Your task to perform on an android device: Open Reddit.com Image 0: 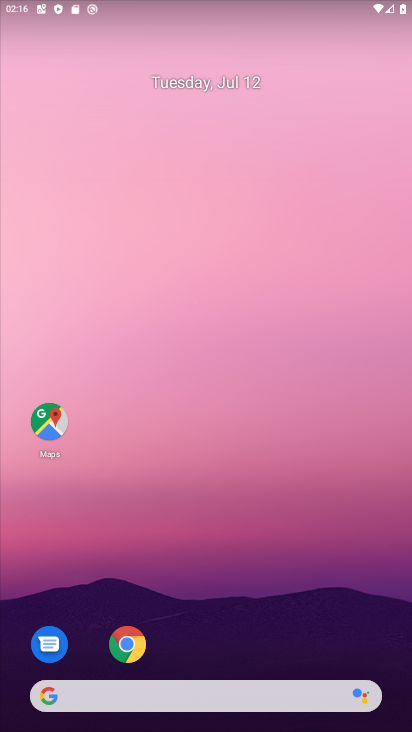
Step 0: click (121, 645)
Your task to perform on an android device: Open Reddit.com Image 1: 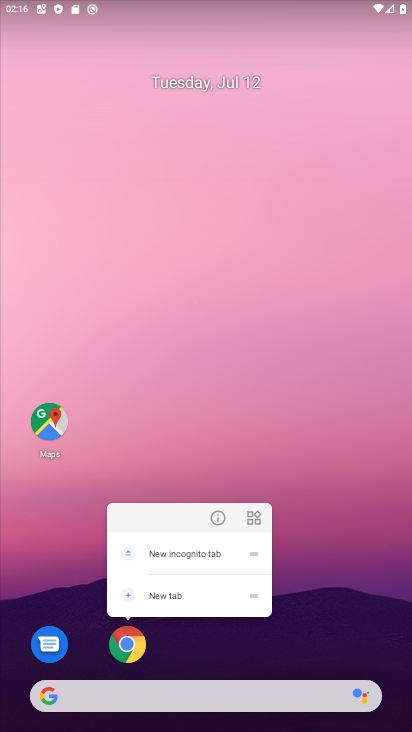
Step 1: click (125, 648)
Your task to perform on an android device: Open Reddit.com Image 2: 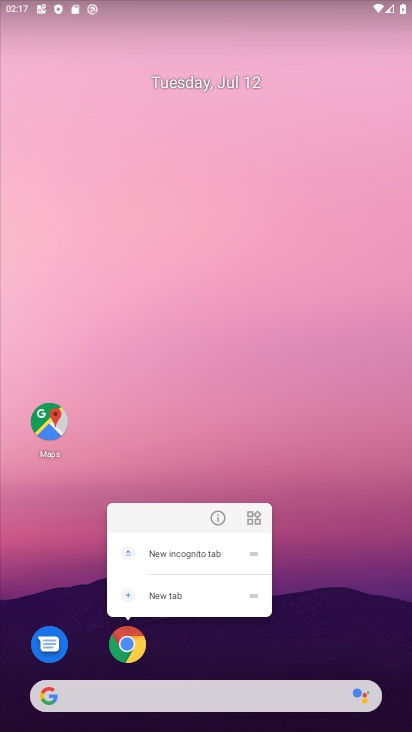
Step 2: click (137, 663)
Your task to perform on an android device: Open Reddit.com Image 3: 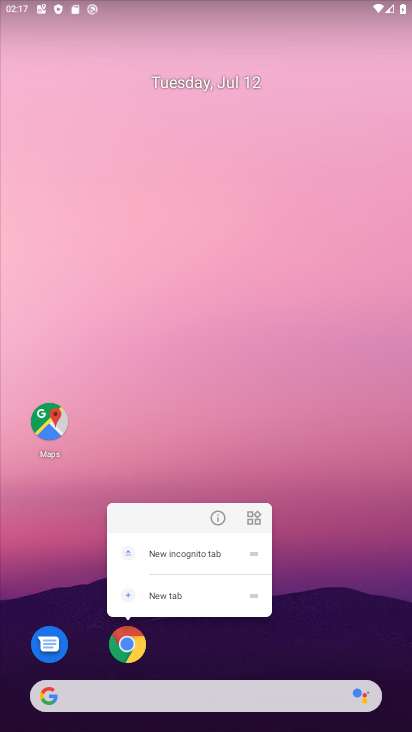
Step 3: click (135, 652)
Your task to perform on an android device: Open Reddit.com Image 4: 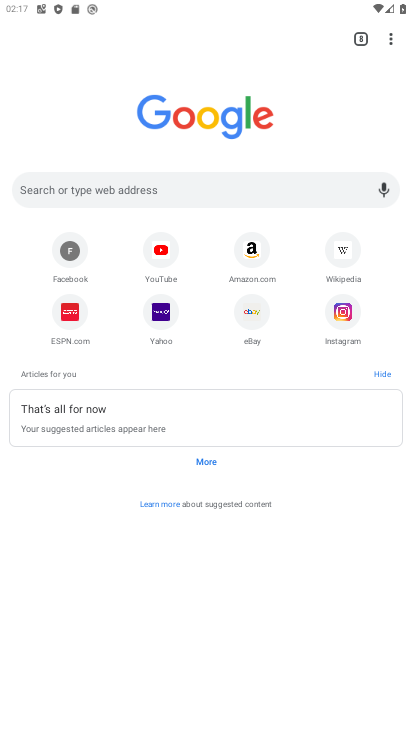
Step 4: click (235, 179)
Your task to perform on an android device: Open Reddit.com Image 5: 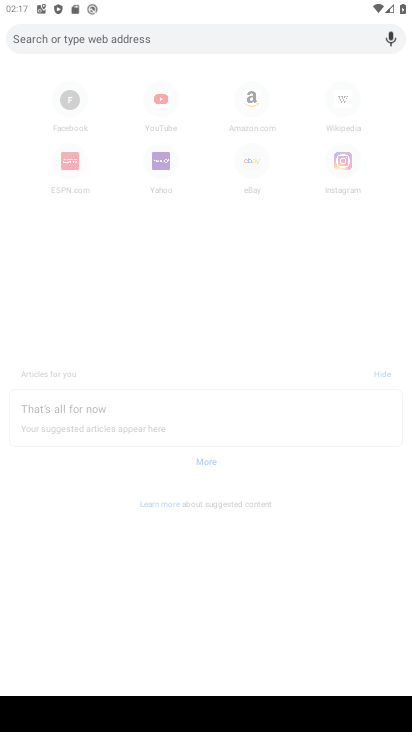
Step 5: type "Reddit.com"
Your task to perform on an android device: Open Reddit.com Image 6: 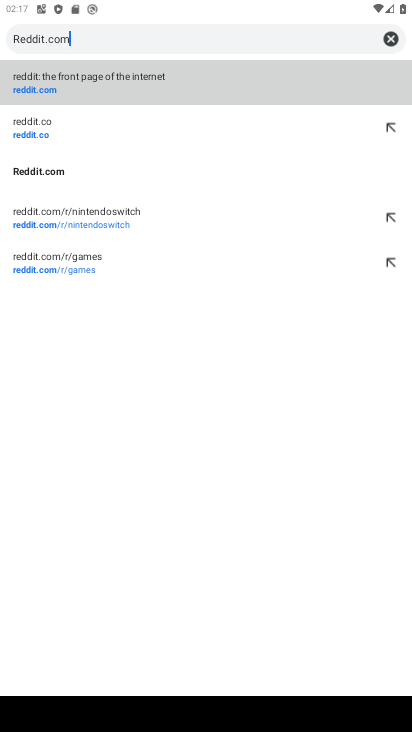
Step 6: type ""
Your task to perform on an android device: Open Reddit.com Image 7: 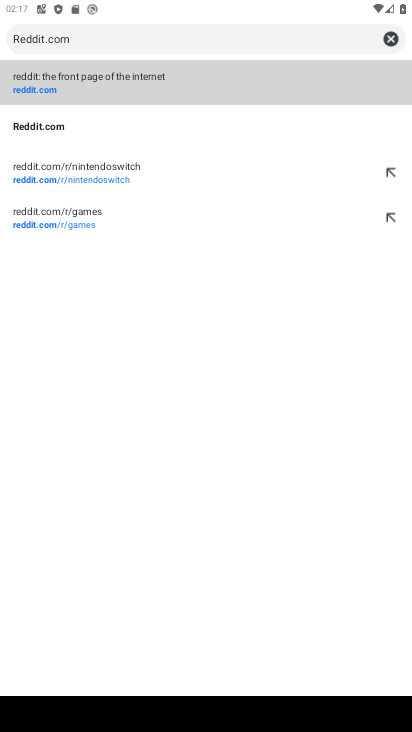
Step 7: click (22, 76)
Your task to perform on an android device: Open Reddit.com Image 8: 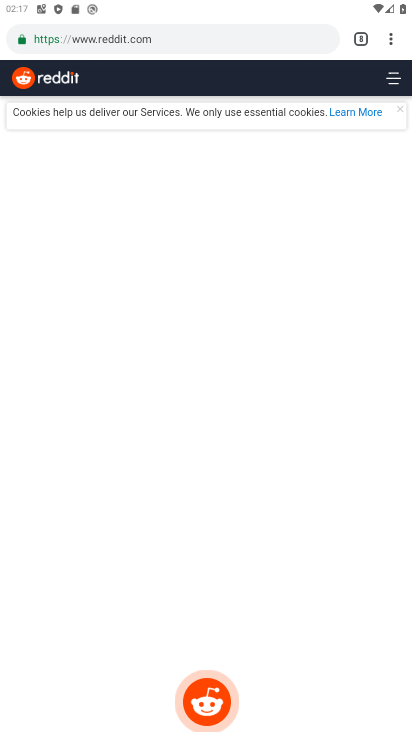
Step 8: task complete